Your task to perform on an android device: Go to sound settings Image 0: 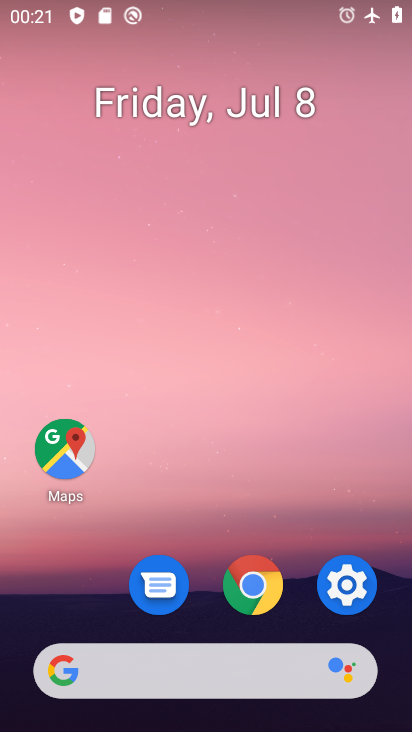
Step 0: click (343, 599)
Your task to perform on an android device: Go to sound settings Image 1: 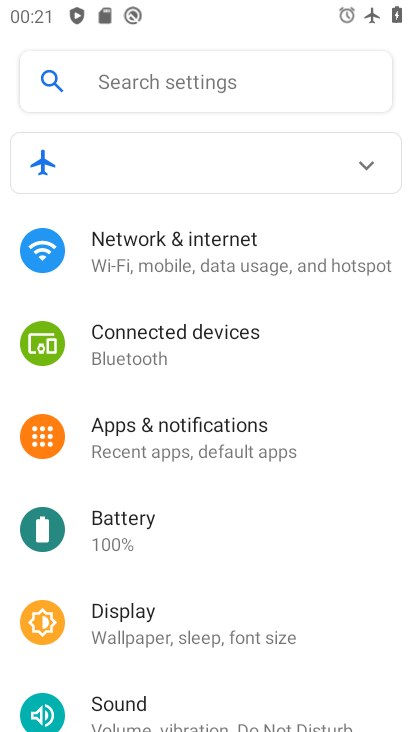
Step 1: click (132, 688)
Your task to perform on an android device: Go to sound settings Image 2: 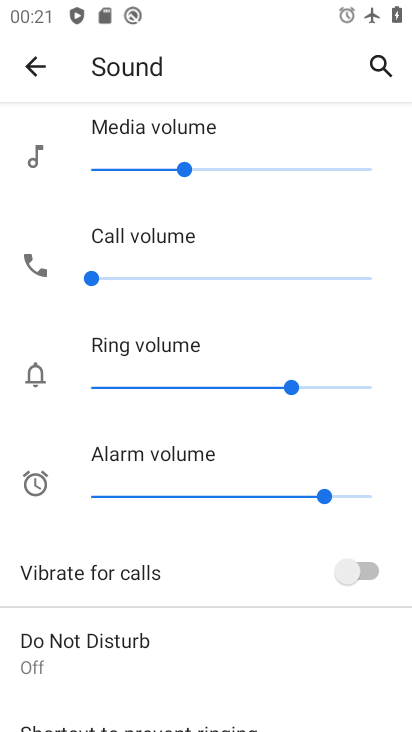
Step 2: task complete